Your task to perform on an android device: What's the weather going to be tomorrow? Image 0: 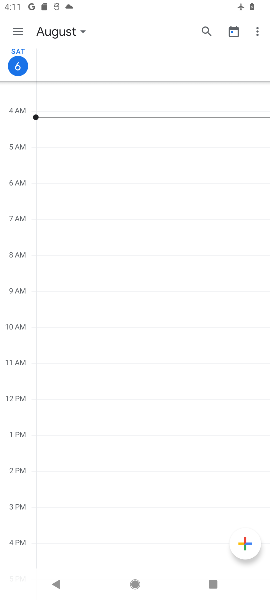
Step 0: press back button
Your task to perform on an android device: What's the weather going to be tomorrow? Image 1: 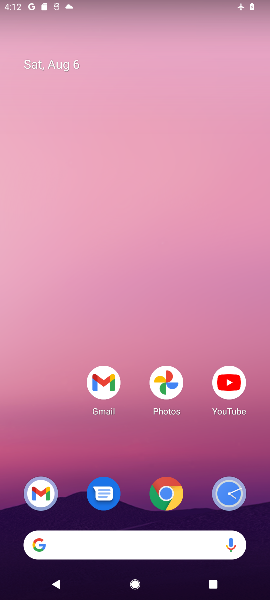
Step 1: drag from (102, 357) to (78, 119)
Your task to perform on an android device: What's the weather going to be tomorrow? Image 2: 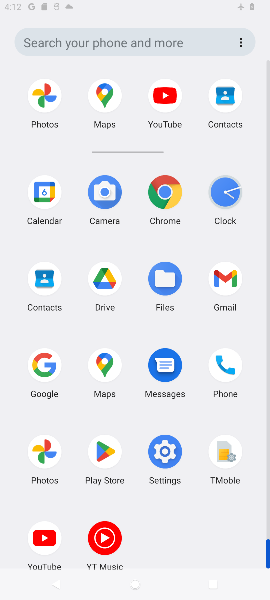
Step 2: click (126, 100)
Your task to perform on an android device: What's the weather going to be tomorrow? Image 3: 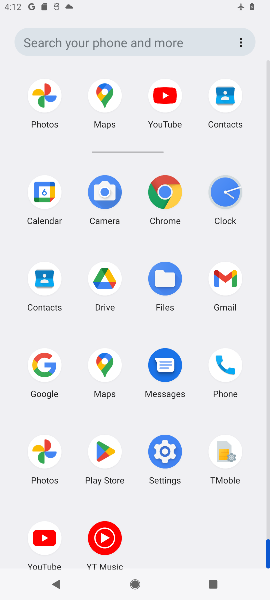
Step 3: drag from (130, 392) to (111, 142)
Your task to perform on an android device: What's the weather going to be tomorrow? Image 4: 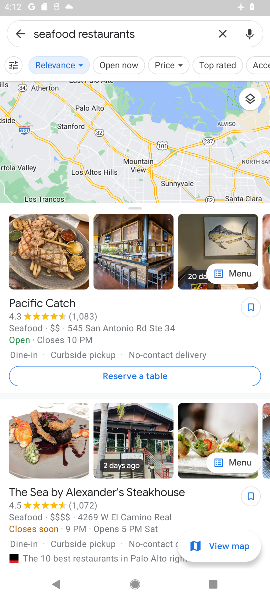
Step 4: click (210, 38)
Your task to perform on an android device: What's the weather going to be tomorrow? Image 5: 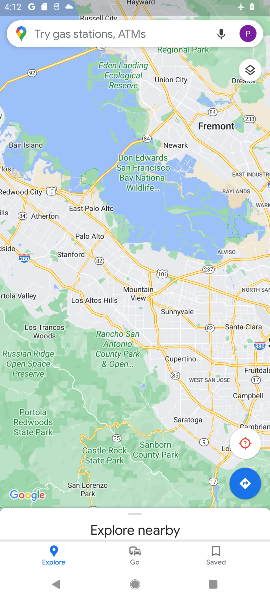
Step 5: press back button
Your task to perform on an android device: What's the weather going to be tomorrow? Image 6: 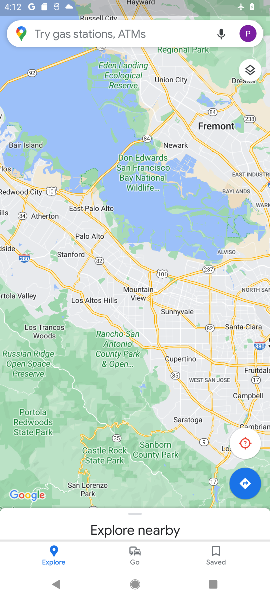
Step 6: press back button
Your task to perform on an android device: What's the weather going to be tomorrow? Image 7: 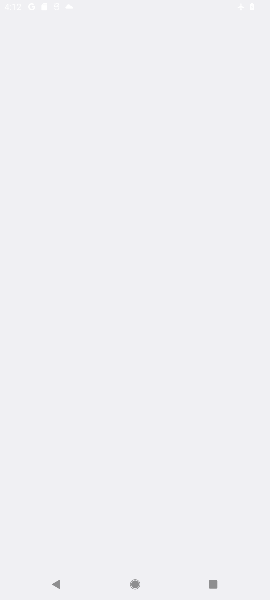
Step 7: press back button
Your task to perform on an android device: What's the weather going to be tomorrow? Image 8: 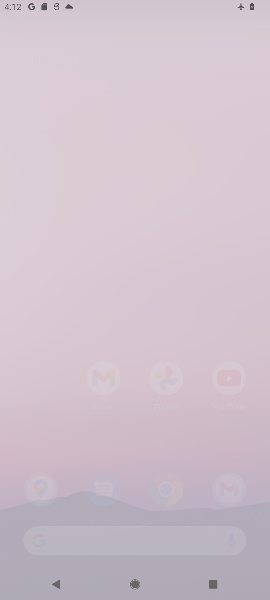
Step 8: press home button
Your task to perform on an android device: What's the weather going to be tomorrow? Image 9: 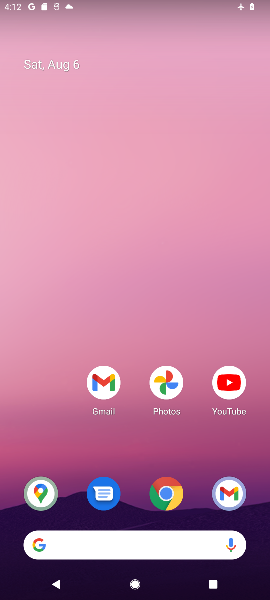
Step 9: press back button
Your task to perform on an android device: What's the weather going to be tomorrow? Image 10: 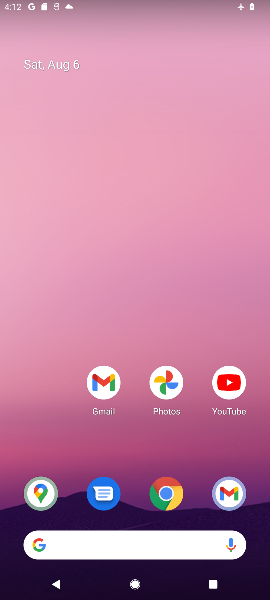
Step 10: drag from (177, 456) to (136, 248)
Your task to perform on an android device: What's the weather going to be tomorrow? Image 11: 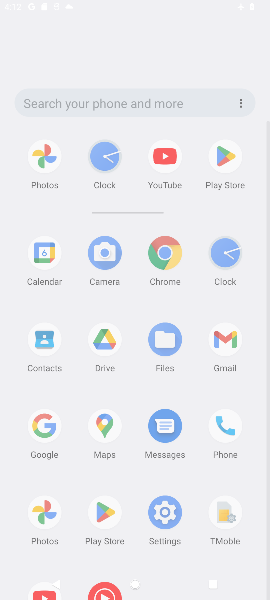
Step 11: drag from (155, 461) to (155, 252)
Your task to perform on an android device: What's the weather going to be tomorrow? Image 12: 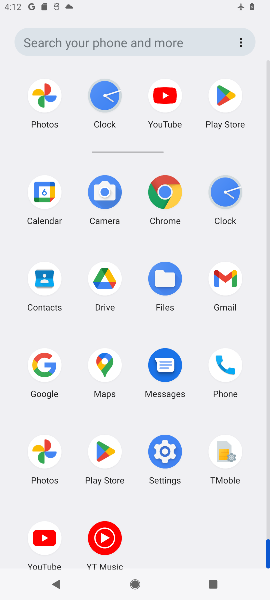
Step 12: click (162, 199)
Your task to perform on an android device: What's the weather going to be tomorrow? Image 13: 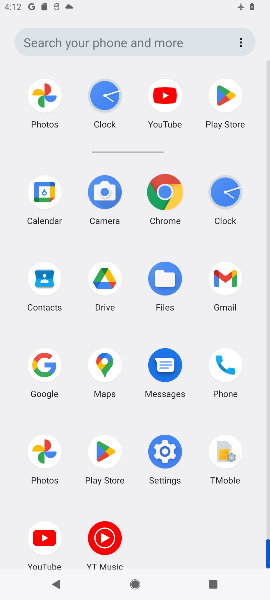
Step 13: click (162, 199)
Your task to perform on an android device: What's the weather going to be tomorrow? Image 14: 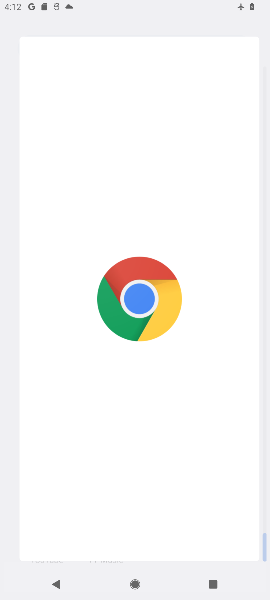
Step 14: click (162, 199)
Your task to perform on an android device: What's the weather going to be tomorrow? Image 15: 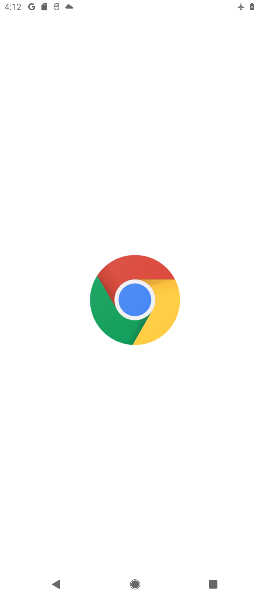
Step 15: click (162, 199)
Your task to perform on an android device: What's the weather going to be tomorrow? Image 16: 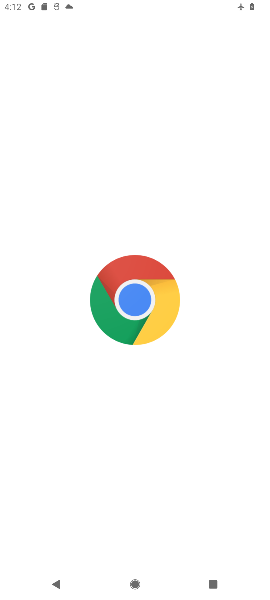
Step 16: click (162, 199)
Your task to perform on an android device: What's the weather going to be tomorrow? Image 17: 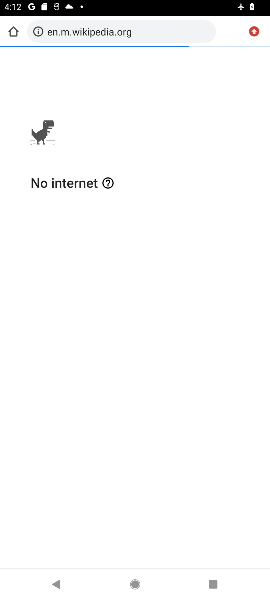
Step 17: click (165, 30)
Your task to perform on an android device: What's the weather going to be tomorrow? Image 18: 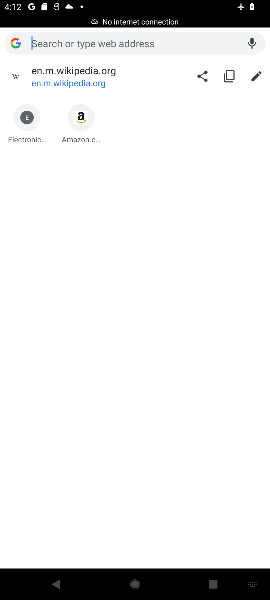
Step 18: press back button
Your task to perform on an android device: What's the weather going to be tomorrow? Image 19: 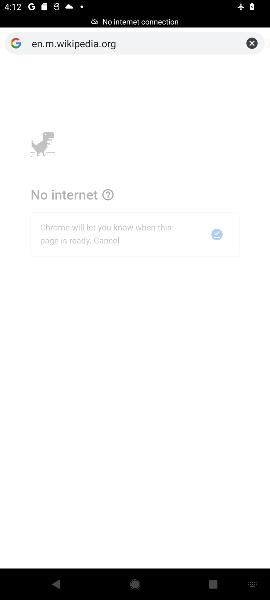
Step 19: press back button
Your task to perform on an android device: What's the weather going to be tomorrow? Image 20: 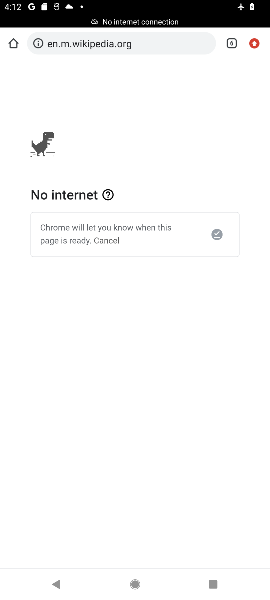
Step 20: press back button
Your task to perform on an android device: What's the weather going to be tomorrow? Image 21: 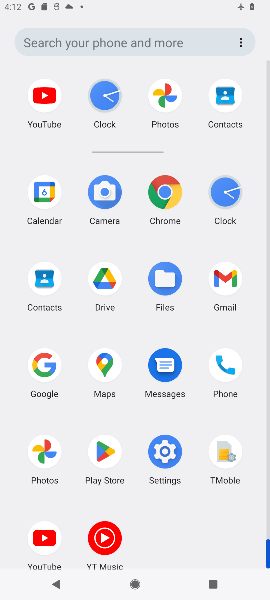
Step 21: click (169, 451)
Your task to perform on an android device: What's the weather going to be tomorrow? Image 22: 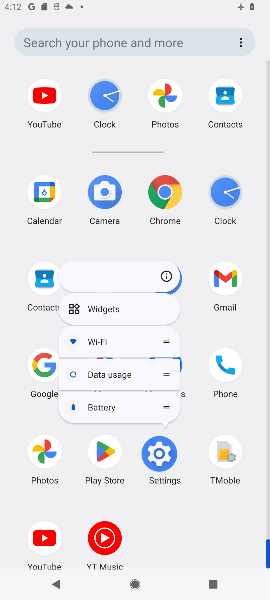
Step 22: click (159, 455)
Your task to perform on an android device: What's the weather going to be tomorrow? Image 23: 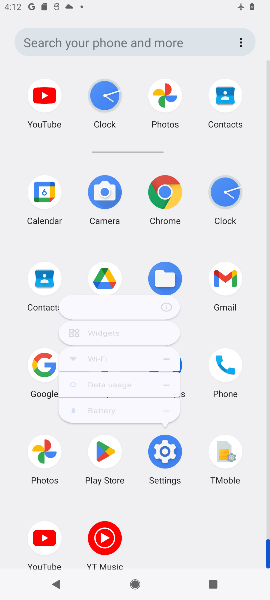
Step 23: click (158, 456)
Your task to perform on an android device: What's the weather going to be tomorrow? Image 24: 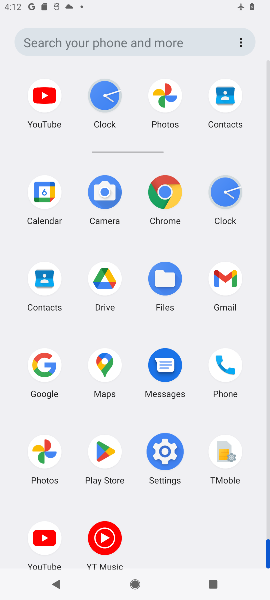
Step 24: click (158, 456)
Your task to perform on an android device: What's the weather going to be tomorrow? Image 25: 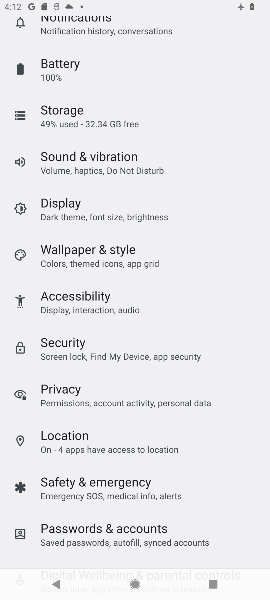
Step 25: drag from (70, 75) to (72, 420)
Your task to perform on an android device: What's the weather going to be tomorrow? Image 26: 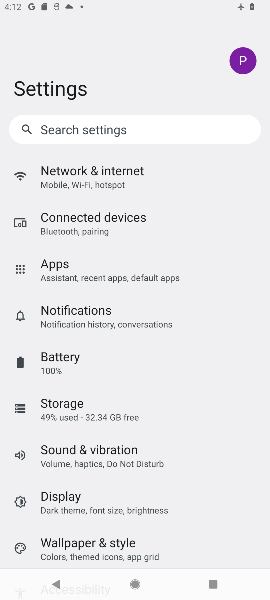
Step 26: click (73, 180)
Your task to perform on an android device: What's the weather going to be tomorrow? Image 27: 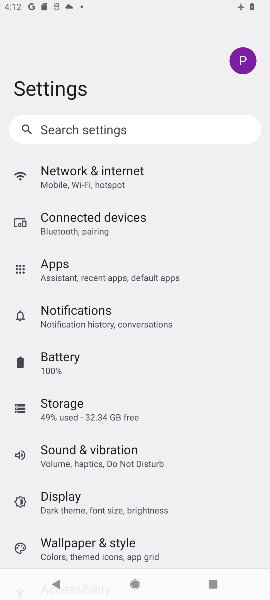
Step 27: click (73, 180)
Your task to perform on an android device: What's the weather going to be tomorrow? Image 28: 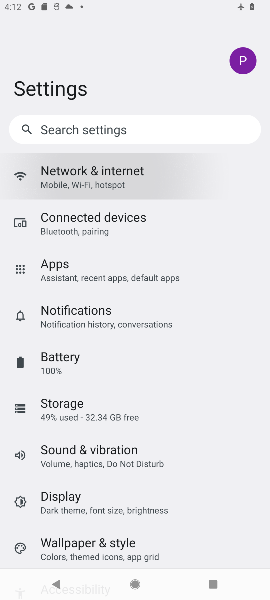
Step 28: click (73, 180)
Your task to perform on an android device: What's the weather going to be tomorrow? Image 29: 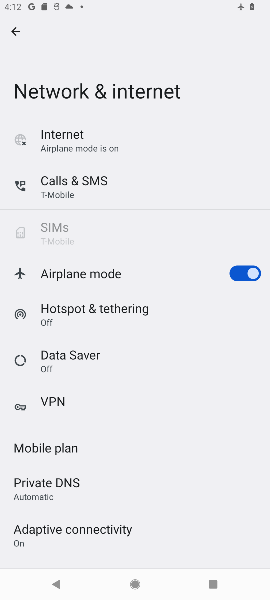
Step 29: click (58, 145)
Your task to perform on an android device: What's the weather going to be tomorrow? Image 30: 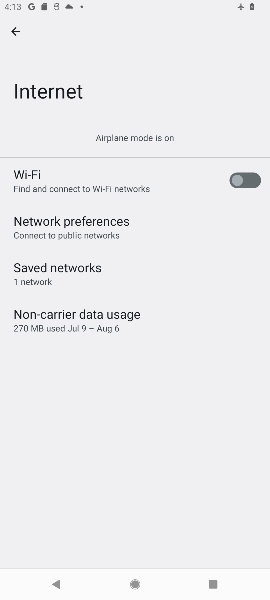
Step 30: click (234, 175)
Your task to perform on an android device: What's the weather going to be tomorrow? Image 31: 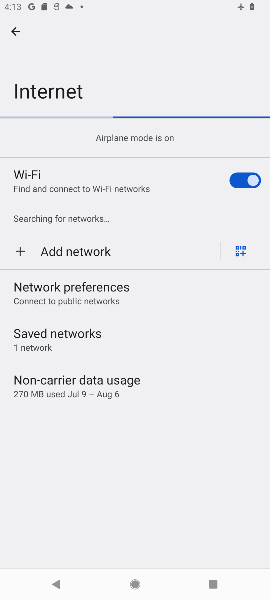
Step 31: press back button
Your task to perform on an android device: What's the weather going to be tomorrow? Image 32: 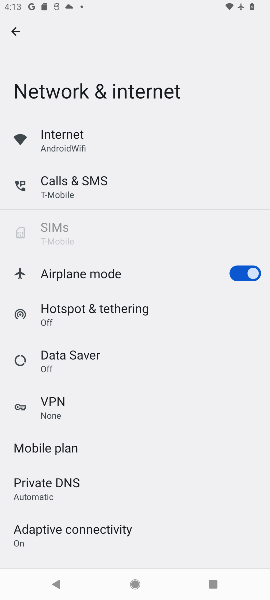
Step 32: click (13, 30)
Your task to perform on an android device: What's the weather going to be tomorrow? Image 33: 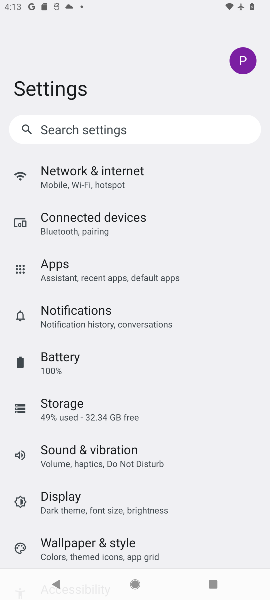
Step 33: click (69, 175)
Your task to perform on an android device: What's the weather going to be tomorrow? Image 34: 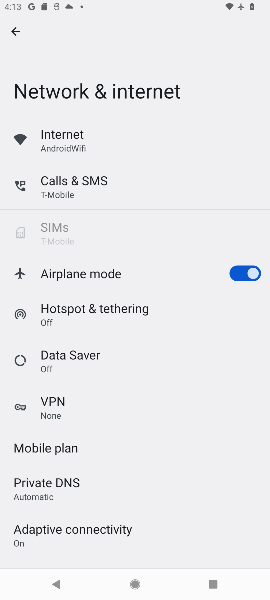
Step 34: click (247, 276)
Your task to perform on an android device: What's the weather going to be tomorrow? Image 35: 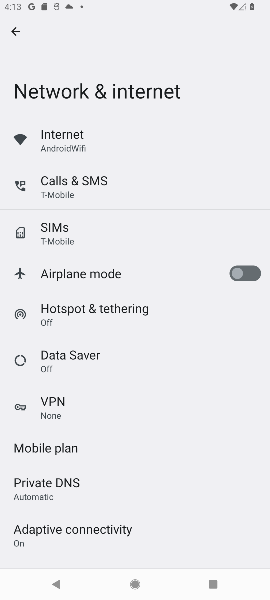
Step 35: click (52, 139)
Your task to perform on an android device: What's the weather going to be tomorrow? Image 36: 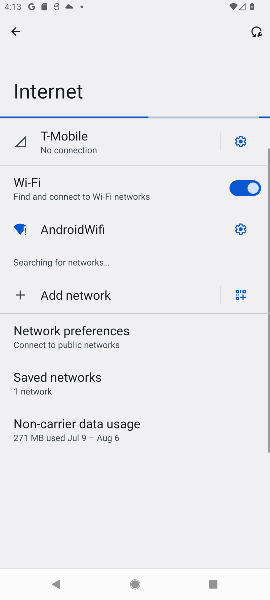
Step 36: click (17, 31)
Your task to perform on an android device: What's the weather going to be tomorrow? Image 37: 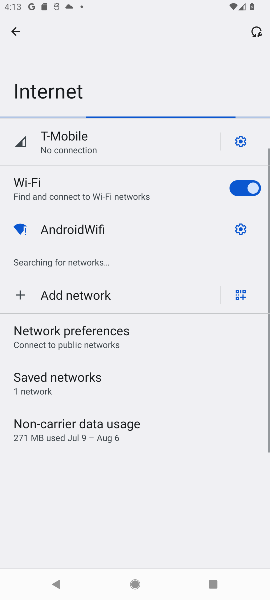
Step 37: click (17, 31)
Your task to perform on an android device: What's the weather going to be tomorrow? Image 38: 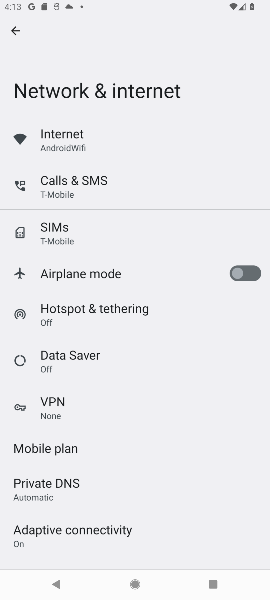
Step 38: click (17, 31)
Your task to perform on an android device: What's the weather going to be tomorrow? Image 39: 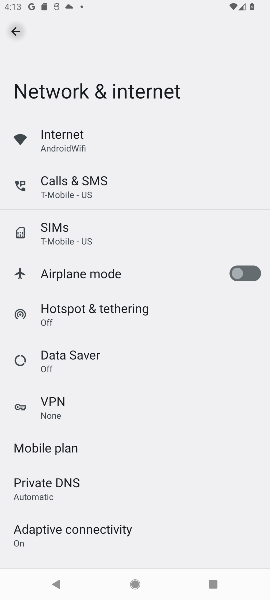
Step 39: click (17, 31)
Your task to perform on an android device: What's the weather going to be tomorrow? Image 40: 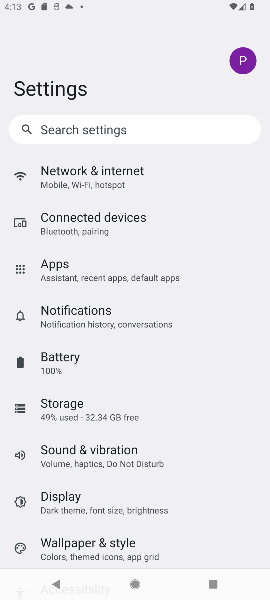
Step 40: press back button
Your task to perform on an android device: What's the weather going to be tomorrow? Image 41: 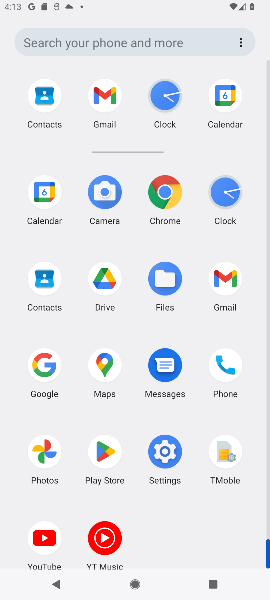
Step 41: click (166, 194)
Your task to perform on an android device: What's the weather going to be tomorrow? Image 42: 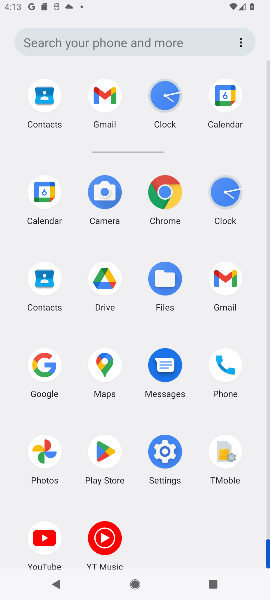
Step 42: click (166, 194)
Your task to perform on an android device: What's the weather going to be tomorrow? Image 43: 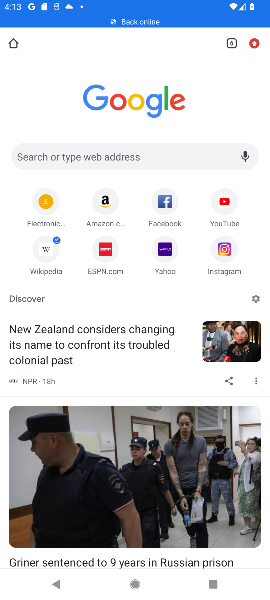
Step 43: click (59, 154)
Your task to perform on an android device: What's the weather going to be tomorrow? Image 44: 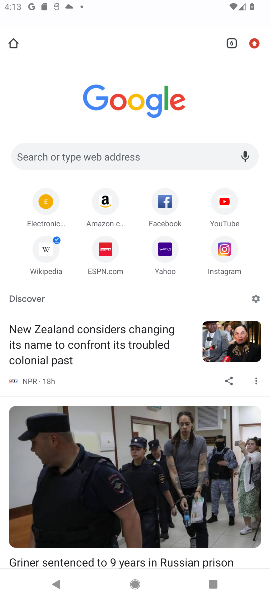
Step 44: click (59, 154)
Your task to perform on an android device: What's the weather going to be tomorrow? Image 45: 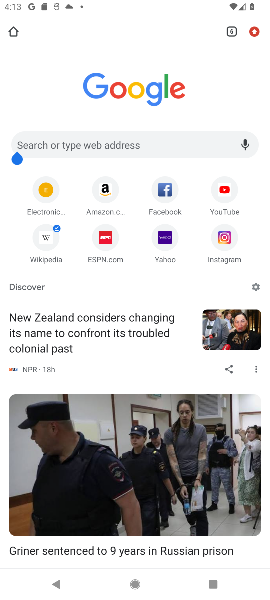
Step 45: click (59, 154)
Your task to perform on an android device: What's the weather going to be tomorrow? Image 46: 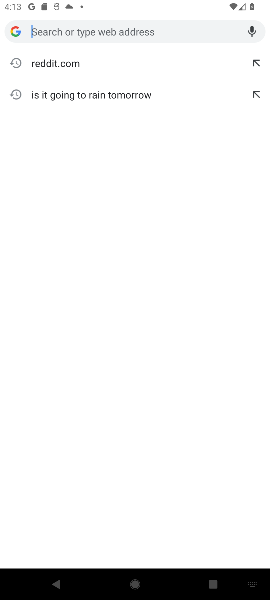
Step 46: type "weather going to be tomorrow"
Your task to perform on an android device: What's the weather going to be tomorrow? Image 47: 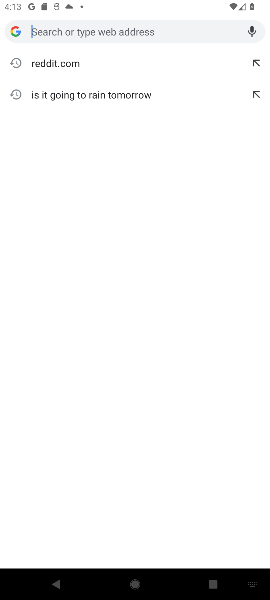
Step 47: click (257, 93)
Your task to perform on an android device: What's the weather going to be tomorrow? Image 48: 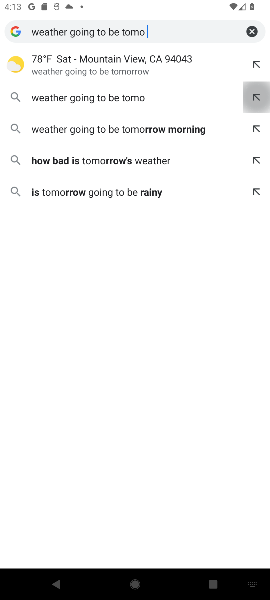
Step 48: click (97, 93)
Your task to perform on an android device: What's the weather going to be tomorrow? Image 49: 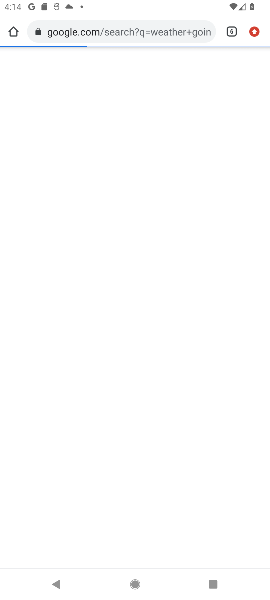
Step 49: task complete